Your task to perform on an android device: See recent photos Image 0: 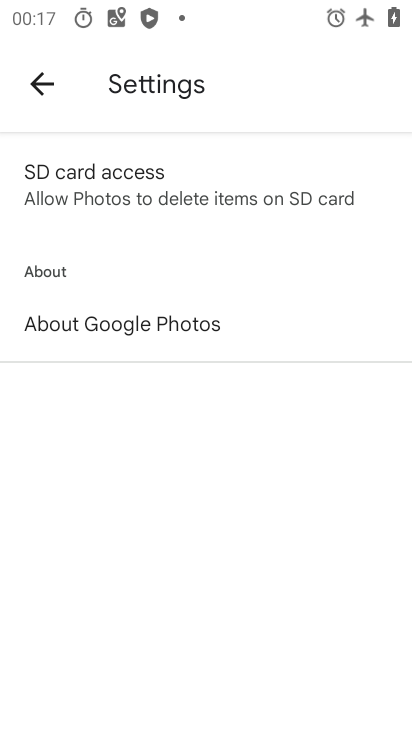
Step 0: press home button
Your task to perform on an android device: See recent photos Image 1: 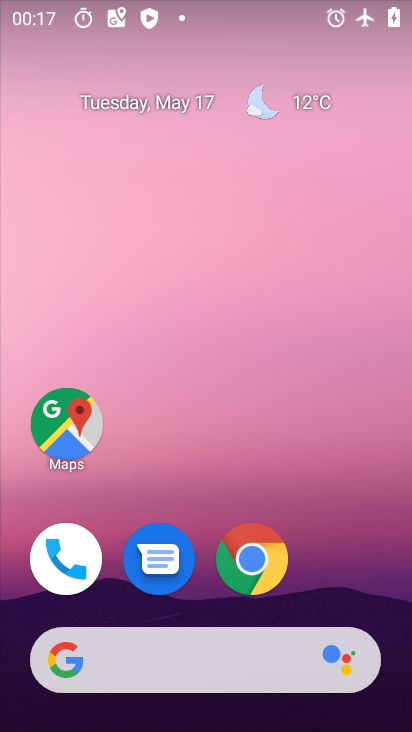
Step 1: drag from (339, 563) to (373, 116)
Your task to perform on an android device: See recent photos Image 2: 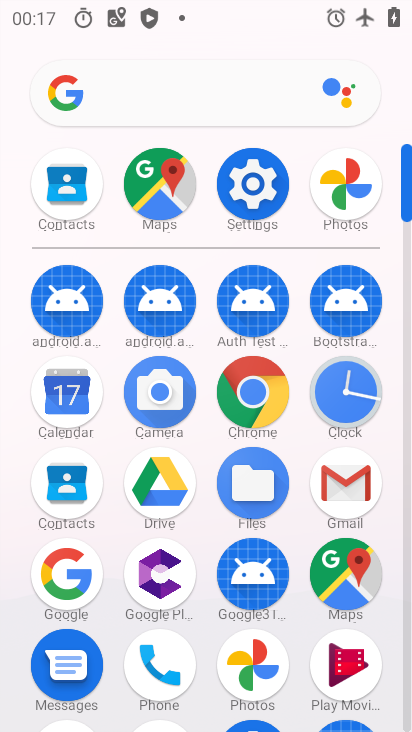
Step 2: click (349, 179)
Your task to perform on an android device: See recent photos Image 3: 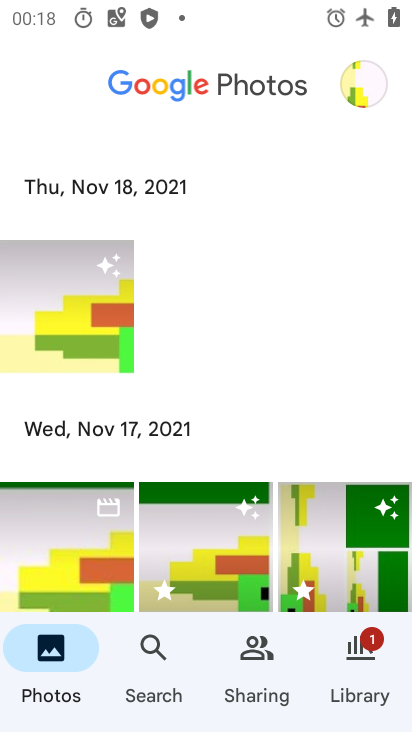
Step 3: task complete